Your task to perform on an android device: turn notification dots off Image 0: 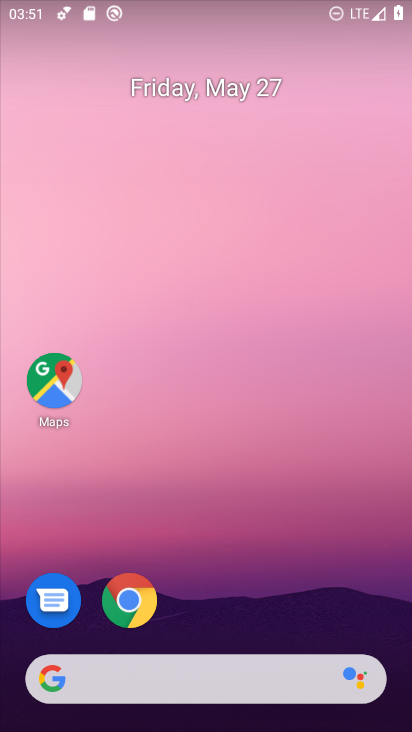
Step 0: drag from (232, 722) to (257, 141)
Your task to perform on an android device: turn notification dots off Image 1: 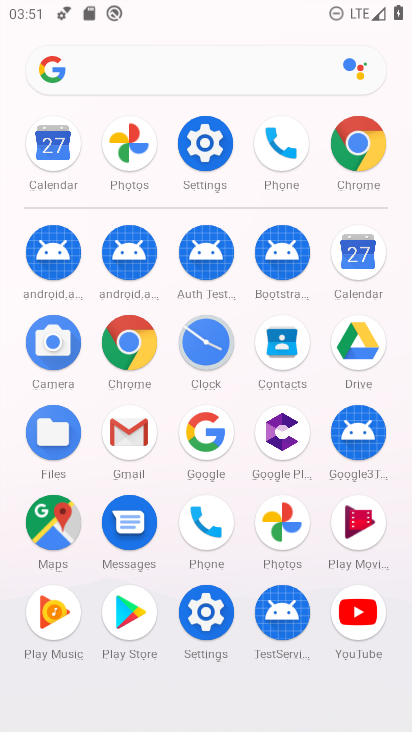
Step 1: click (209, 145)
Your task to perform on an android device: turn notification dots off Image 2: 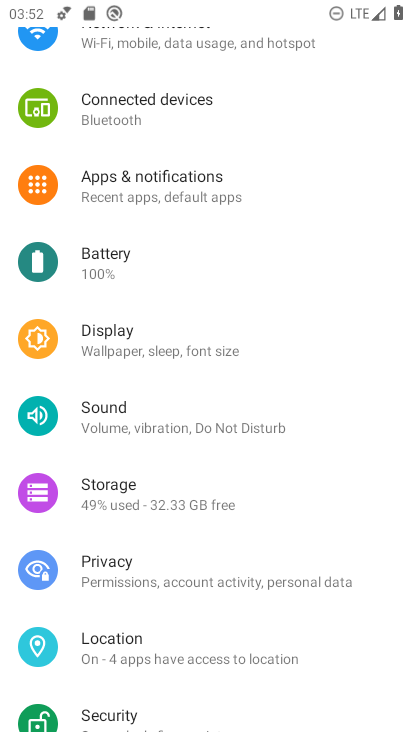
Step 2: click (121, 203)
Your task to perform on an android device: turn notification dots off Image 3: 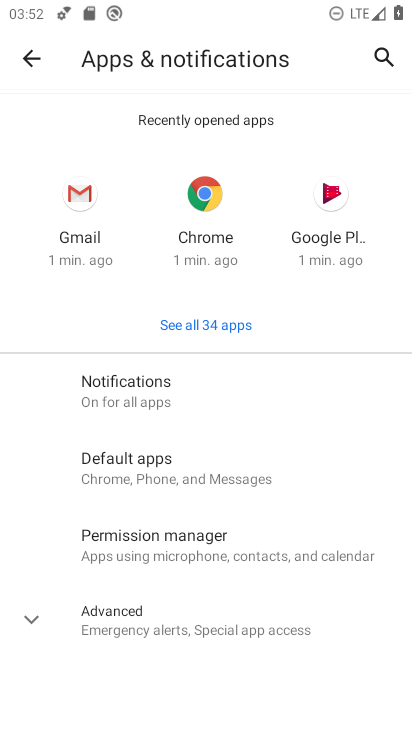
Step 3: click (118, 398)
Your task to perform on an android device: turn notification dots off Image 4: 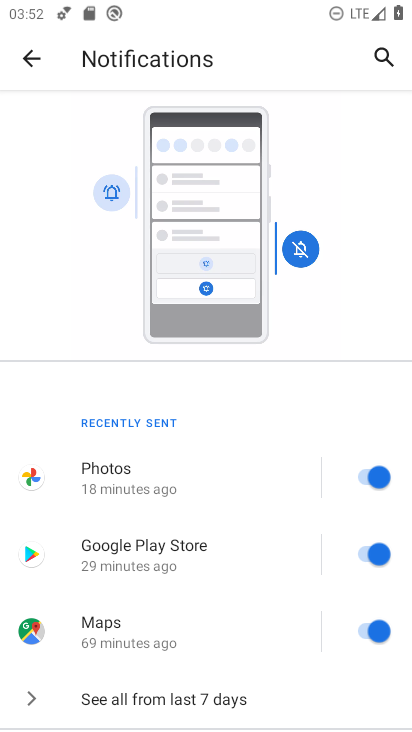
Step 4: drag from (175, 720) to (178, 280)
Your task to perform on an android device: turn notification dots off Image 5: 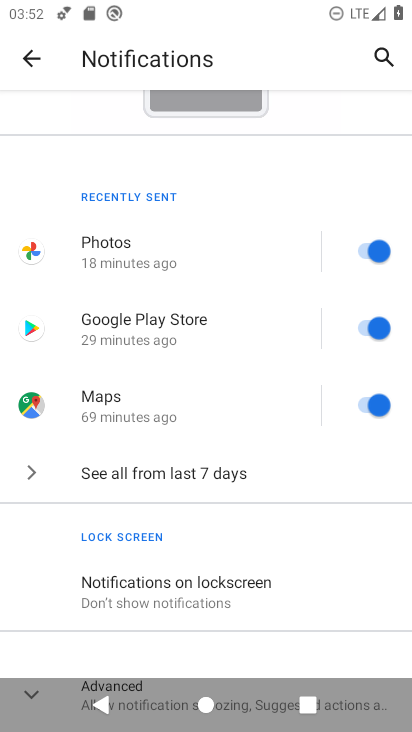
Step 5: drag from (171, 660) to (170, 354)
Your task to perform on an android device: turn notification dots off Image 6: 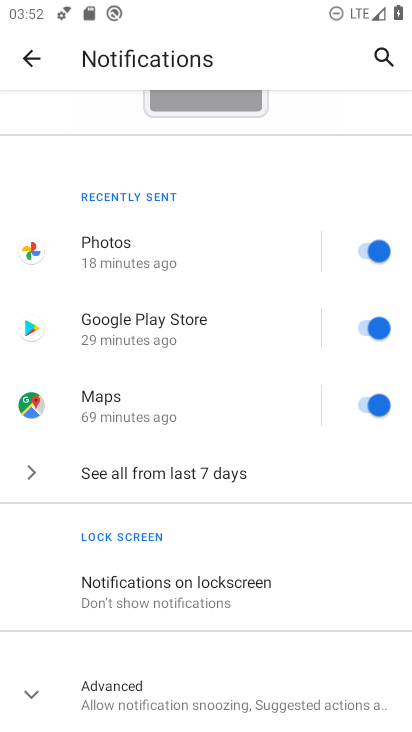
Step 6: click (126, 675)
Your task to perform on an android device: turn notification dots off Image 7: 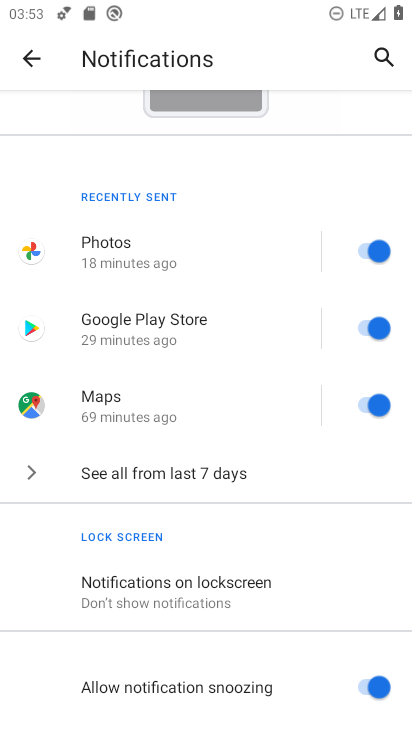
Step 7: drag from (225, 689) to (226, 445)
Your task to perform on an android device: turn notification dots off Image 8: 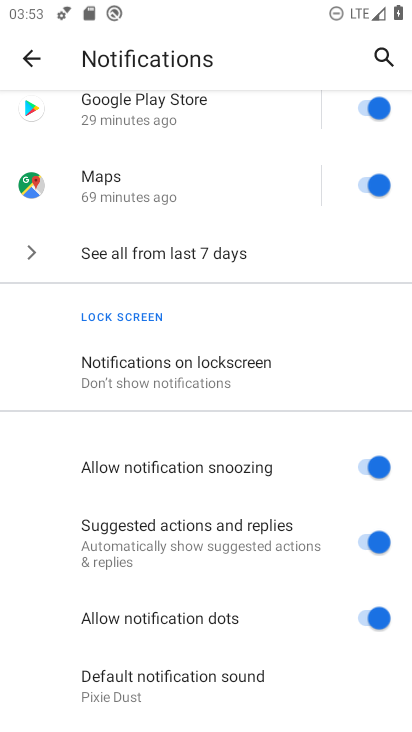
Step 8: click (368, 615)
Your task to perform on an android device: turn notification dots off Image 9: 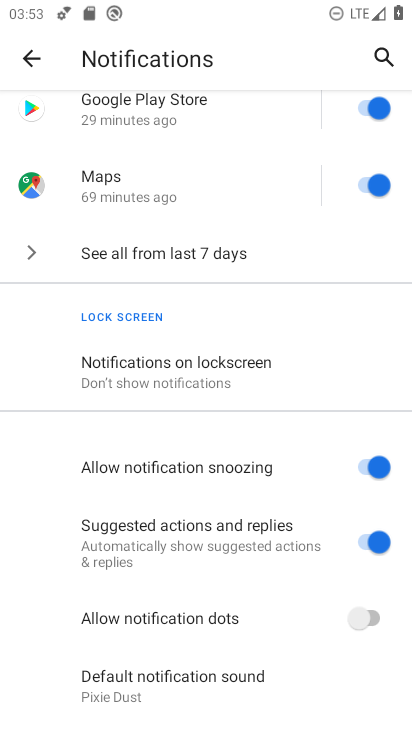
Step 9: task complete